Your task to perform on an android device: Toggle the flashlight Image 0: 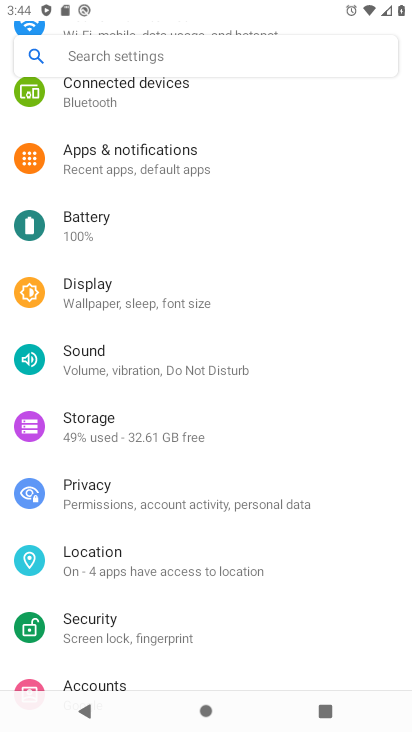
Step 0: drag from (227, 238) to (226, 151)
Your task to perform on an android device: Toggle the flashlight Image 1: 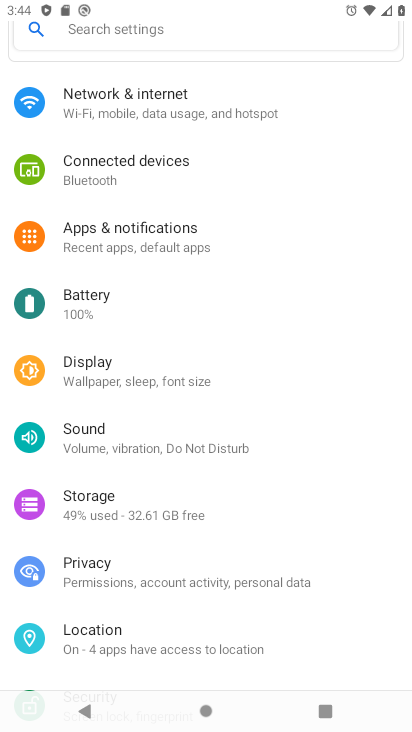
Step 1: press home button
Your task to perform on an android device: Toggle the flashlight Image 2: 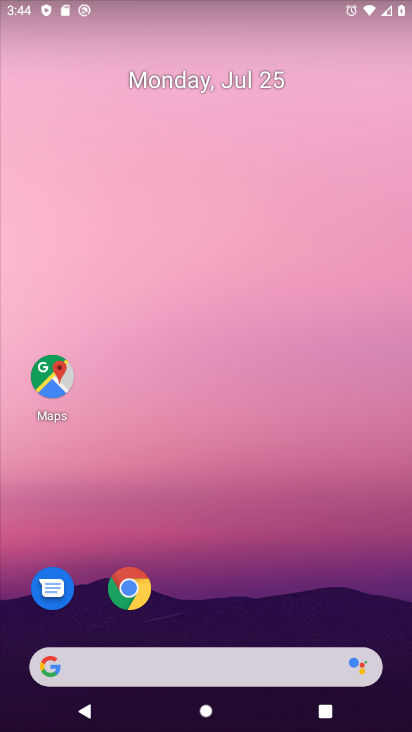
Step 2: drag from (233, 721) to (231, 314)
Your task to perform on an android device: Toggle the flashlight Image 3: 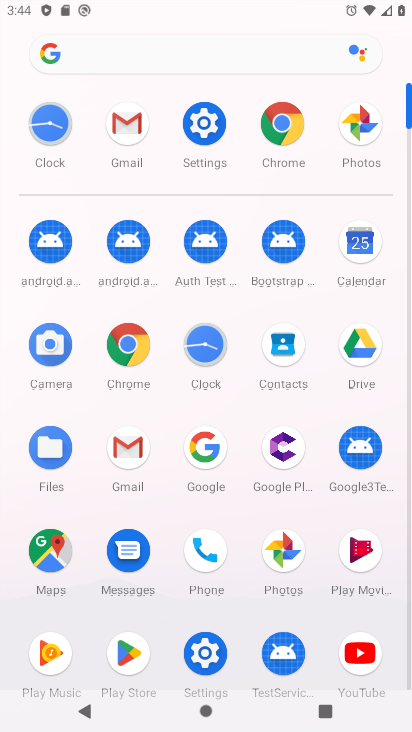
Step 3: click (200, 644)
Your task to perform on an android device: Toggle the flashlight Image 4: 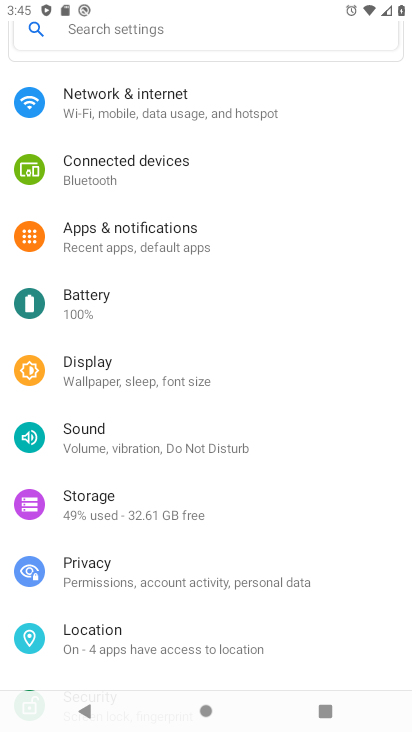
Step 4: task complete